Your task to perform on an android device: turn on javascript in the chrome app Image 0: 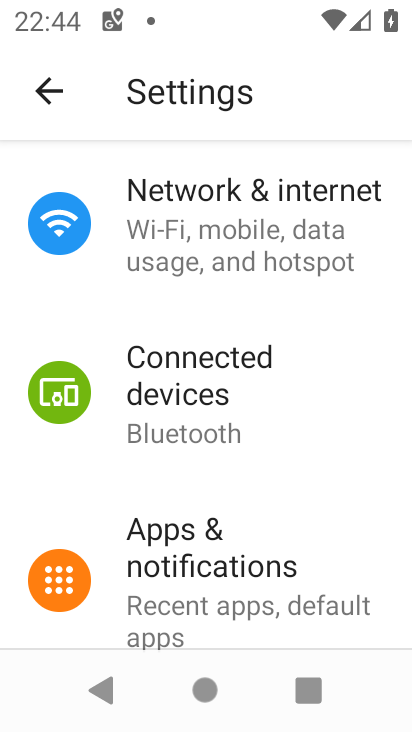
Step 0: press home button
Your task to perform on an android device: turn on javascript in the chrome app Image 1: 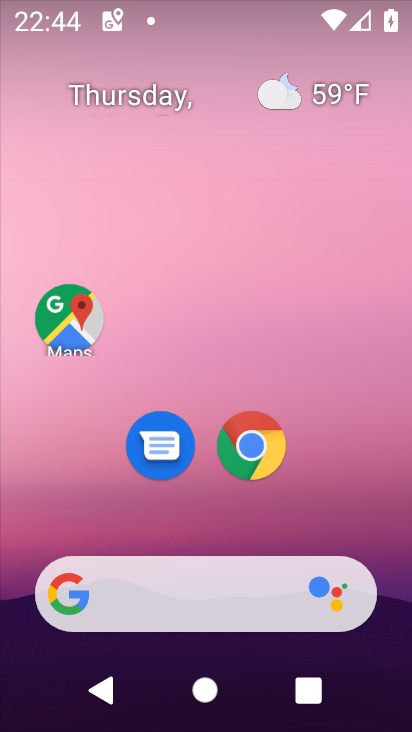
Step 1: click (250, 477)
Your task to perform on an android device: turn on javascript in the chrome app Image 2: 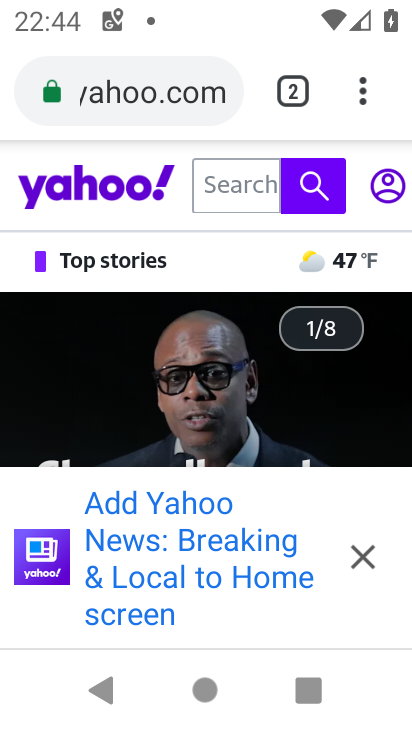
Step 2: drag from (361, 93) to (146, 473)
Your task to perform on an android device: turn on javascript in the chrome app Image 3: 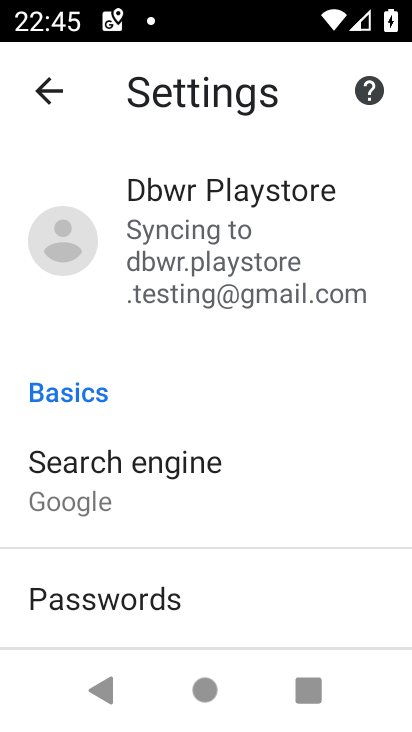
Step 3: drag from (175, 567) to (103, 16)
Your task to perform on an android device: turn on javascript in the chrome app Image 4: 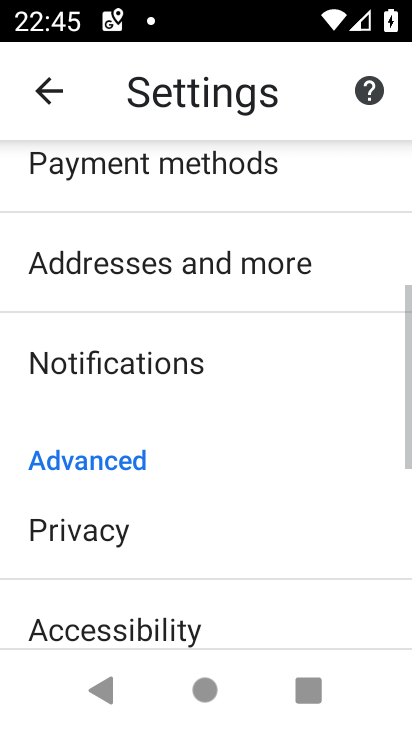
Step 4: drag from (169, 580) to (130, 72)
Your task to perform on an android device: turn on javascript in the chrome app Image 5: 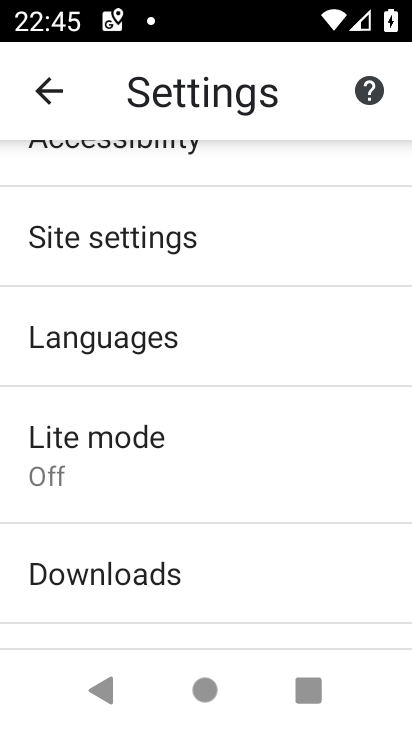
Step 5: click (159, 252)
Your task to perform on an android device: turn on javascript in the chrome app Image 6: 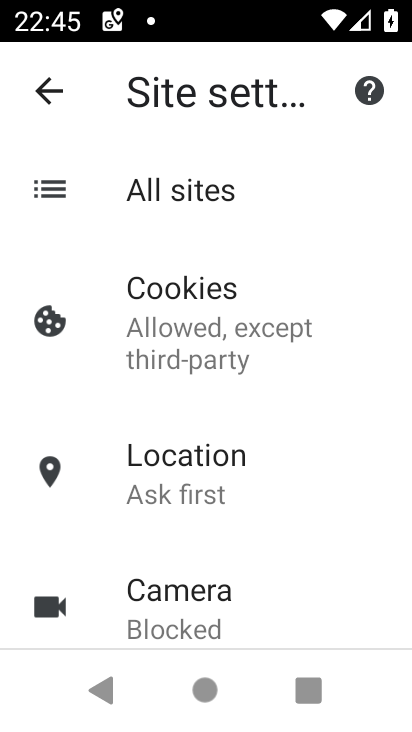
Step 6: drag from (212, 547) to (188, 4)
Your task to perform on an android device: turn on javascript in the chrome app Image 7: 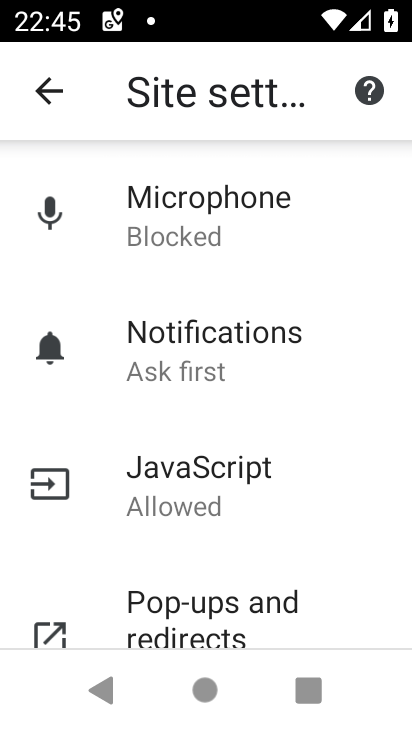
Step 7: click (195, 489)
Your task to perform on an android device: turn on javascript in the chrome app Image 8: 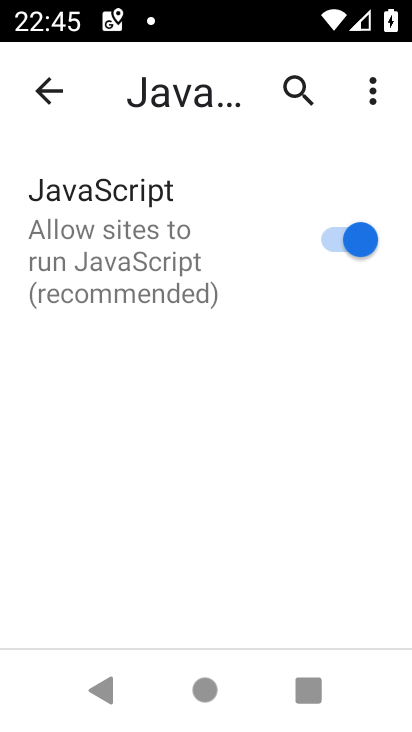
Step 8: task complete